Your task to perform on an android device: remove spam from my inbox in the gmail app Image 0: 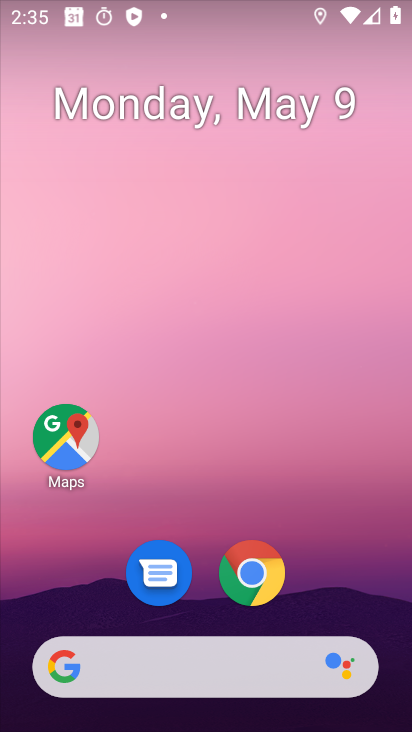
Step 0: drag from (292, 625) to (209, 96)
Your task to perform on an android device: remove spam from my inbox in the gmail app Image 1: 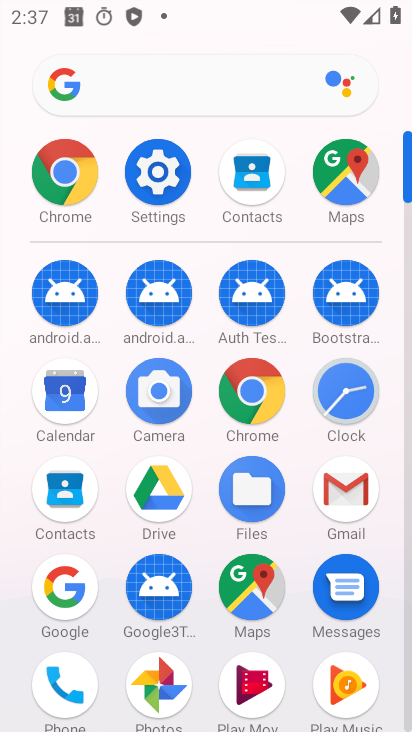
Step 1: click (322, 486)
Your task to perform on an android device: remove spam from my inbox in the gmail app Image 2: 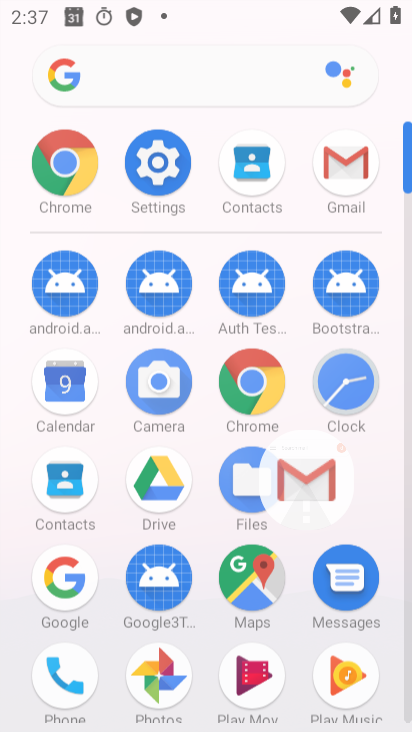
Step 2: click (357, 486)
Your task to perform on an android device: remove spam from my inbox in the gmail app Image 3: 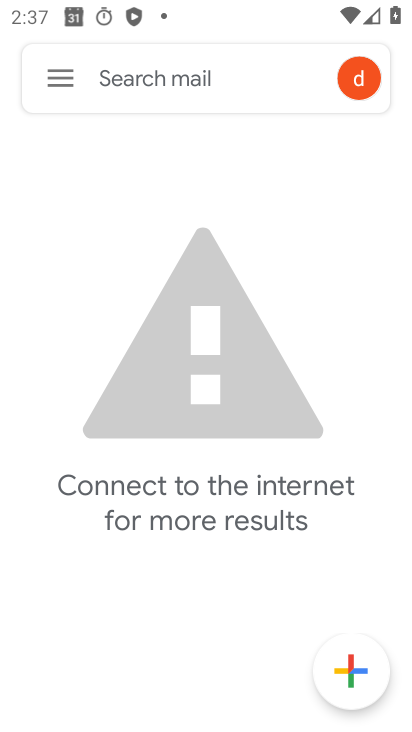
Step 3: click (68, 84)
Your task to perform on an android device: remove spam from my inbox in the gmail app Image 4: 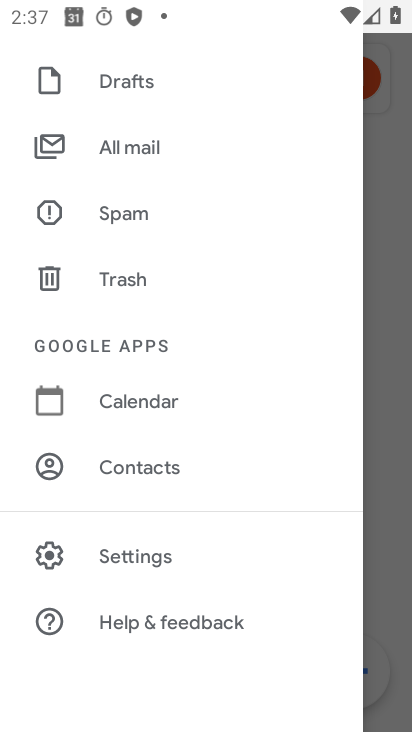
Step 4: click (49, 86)
Your task to perform on an android device: remove spam from my inbox in the gmail app Image 5: 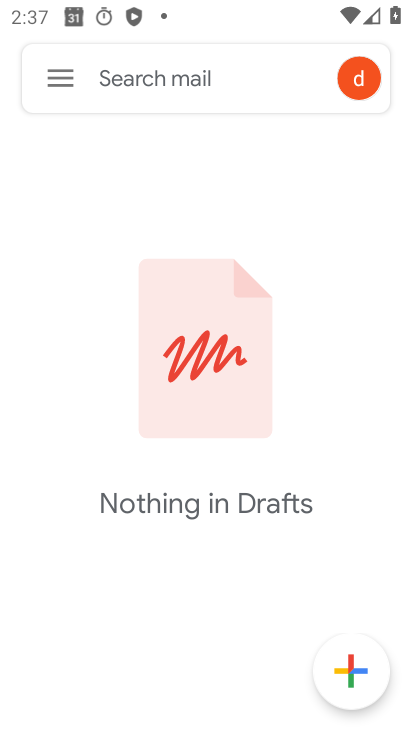
Step 5: click (137, 565)
Your task to perform on an android device: remove spam from my inbox in the gmail app Image 6: 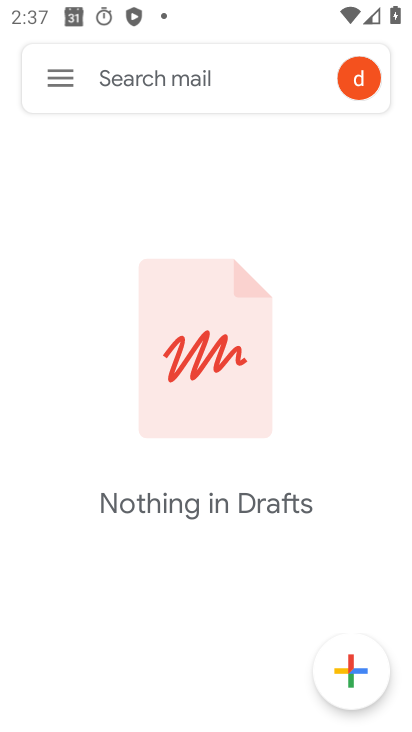
Step 6: task complete